Your task to perform on an android device: Go to location settings Image 0: 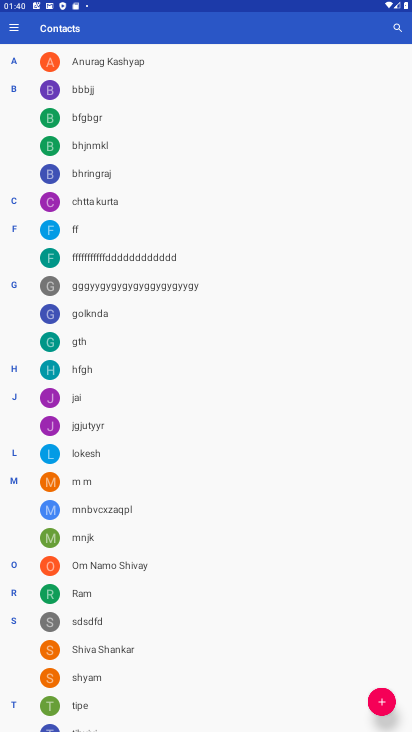
Step 0: press home button
Your task to perform on an android device: Go to location settings Image 1: 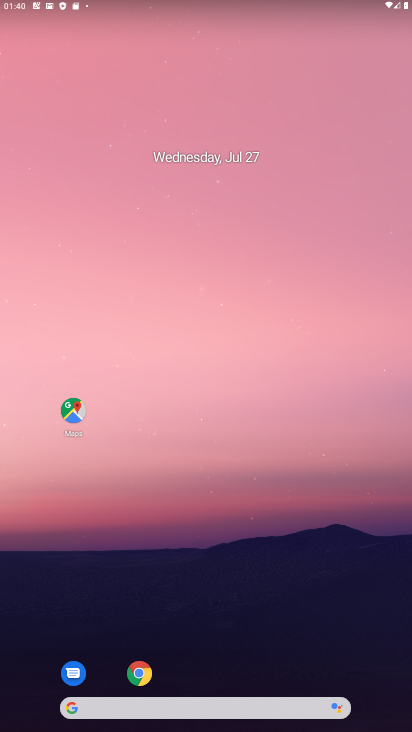
Step 1: drag from (206, 677) to (206, 257)
Your task to perform on an android device: Go to location settings Image 2: 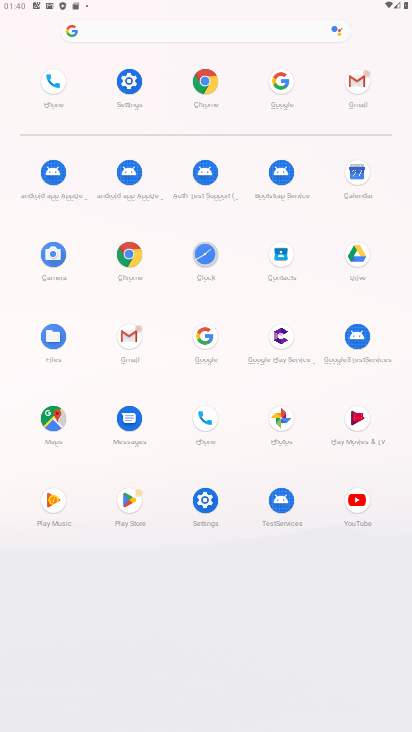
Step 2: click (208, 503)
Your task to perform on an android device: Go to location settings Image 3: 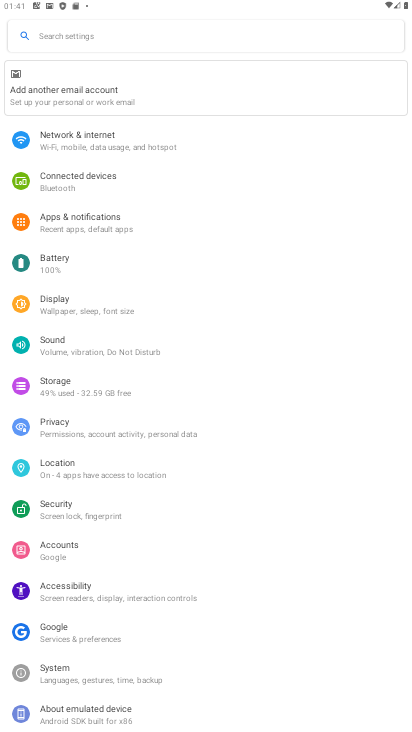
Step 3: click (110, 460)
Your task to perform on an android device: Go to location settings Image 4: 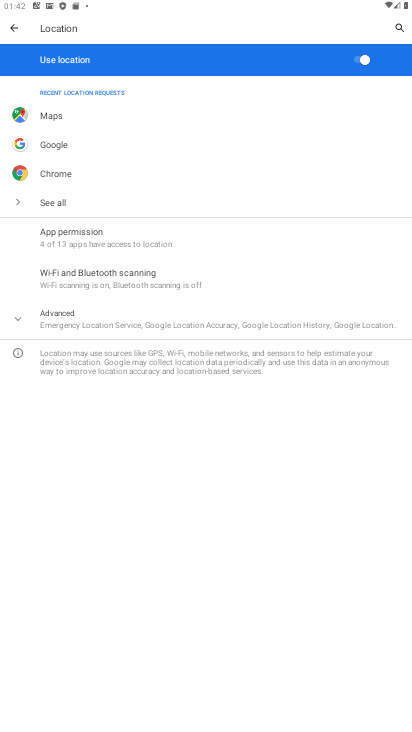
Step 4: task complete